Your task to perform on an android device: open app "Google Photos" (install if not already installed) Image 0: 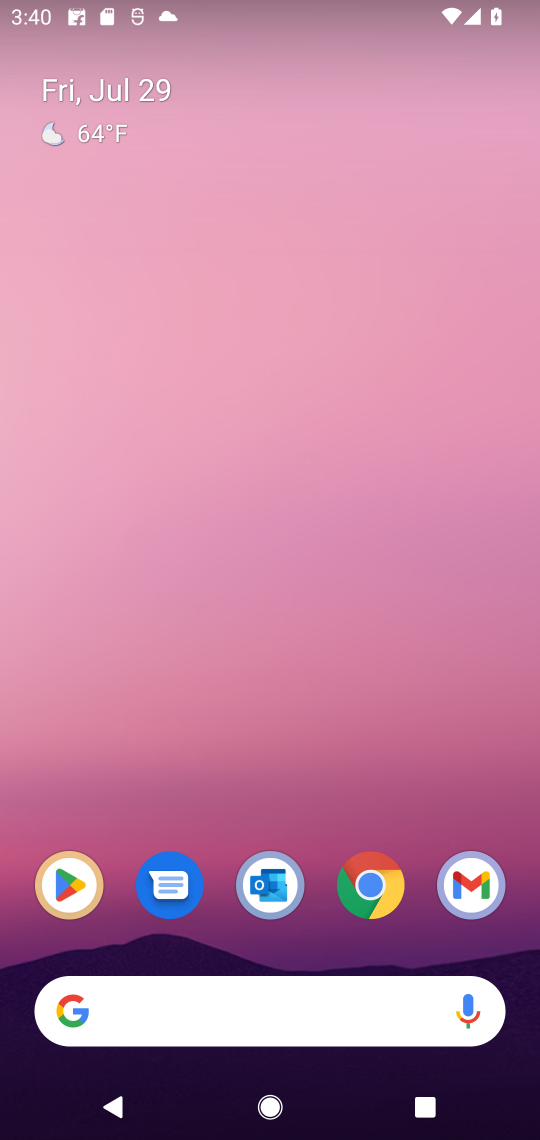
Step 0: click (68, 887)
Your task to perform on an android device: open app "Google Photos" (install if not already installed) Image 1: 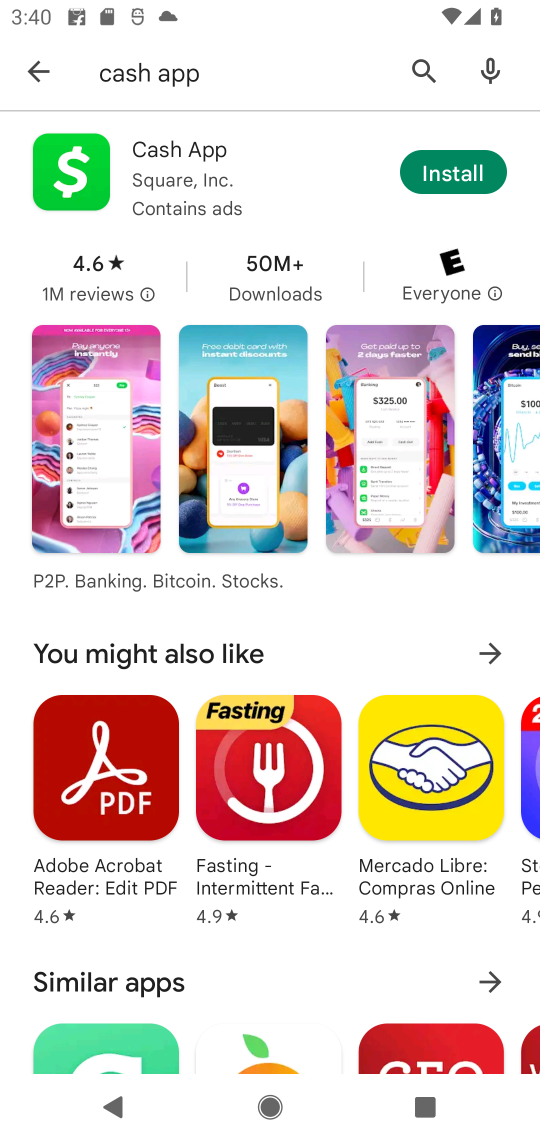
Step 1: click (429, 62)
Your task to perform on an android device: open app "Google Photos" (install if not already installed) Image 2: 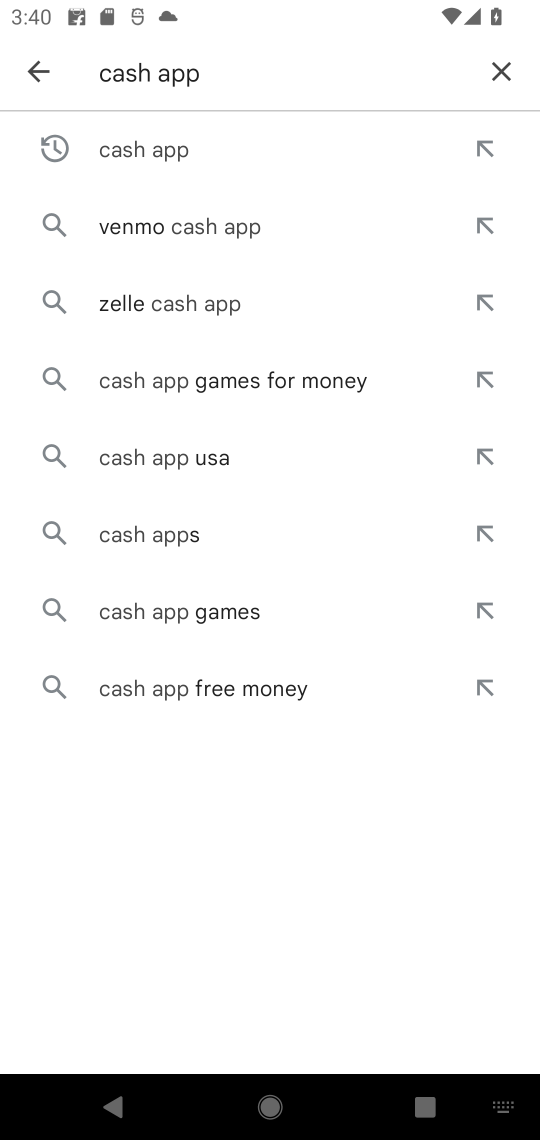
Step 2: click (508, 70)
Your task to perform on an android device: open app "Google Photos" (install if not already installed) Image 3: 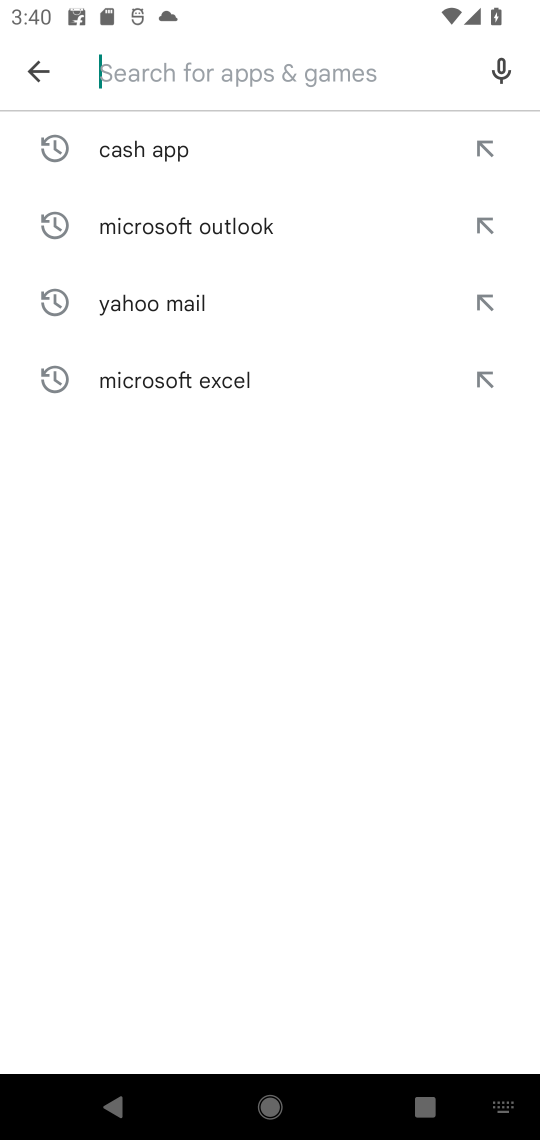
Step 3: type "Google Photos"
Your task to perform on an android device: open app "Google Photos" (install if not already installed) Image 4: 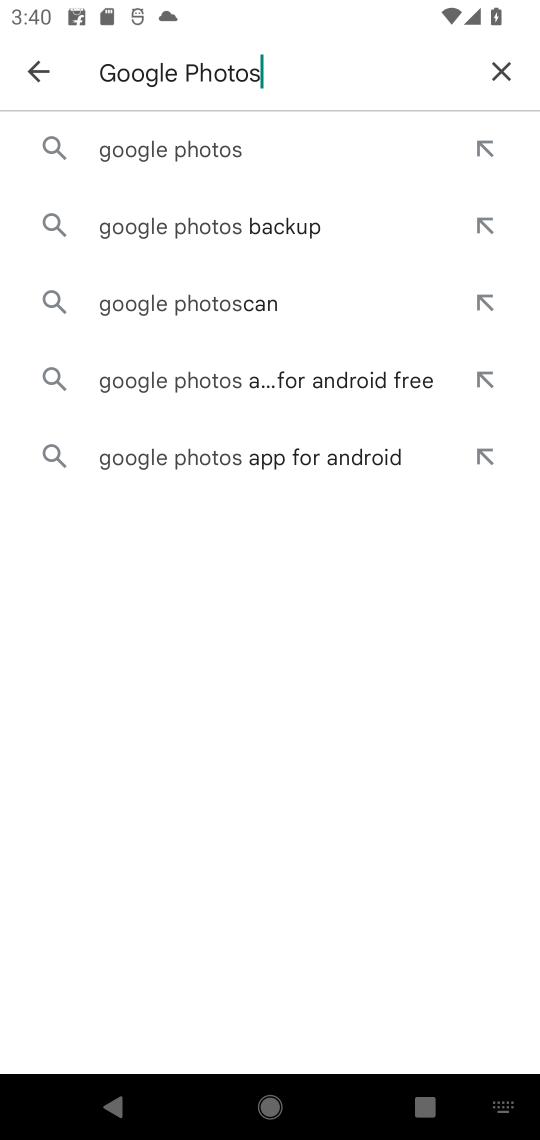
Step 4: click (307, 156)
Your task to perform on an android device: open app "Google Photos" (install if not already installed) Image 5: 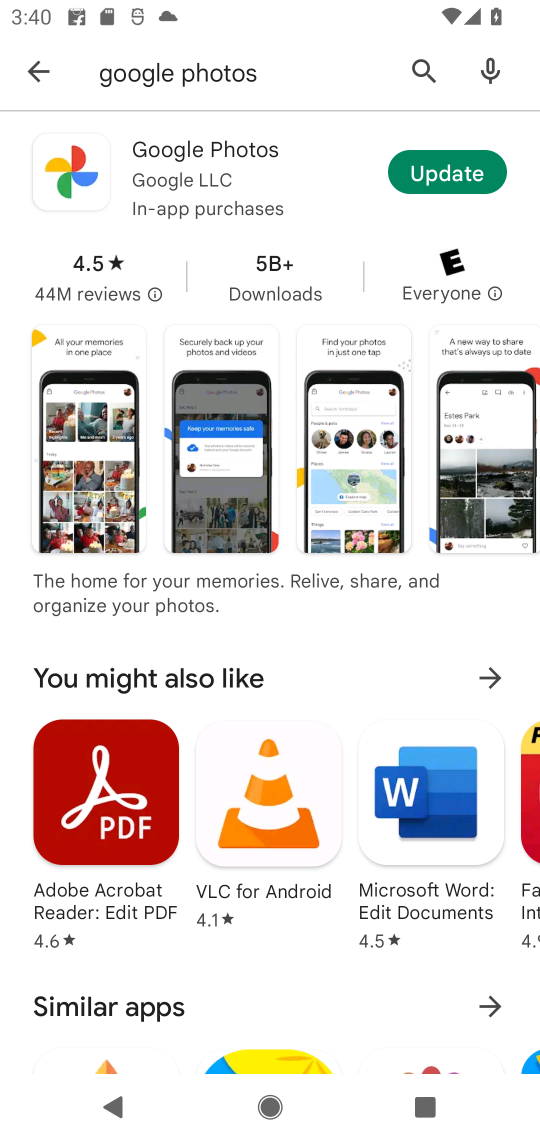
Step 5: click (243, 182)
Your task to perform on an android device: open app "Google Photos" (install if not already installed) Image 6: 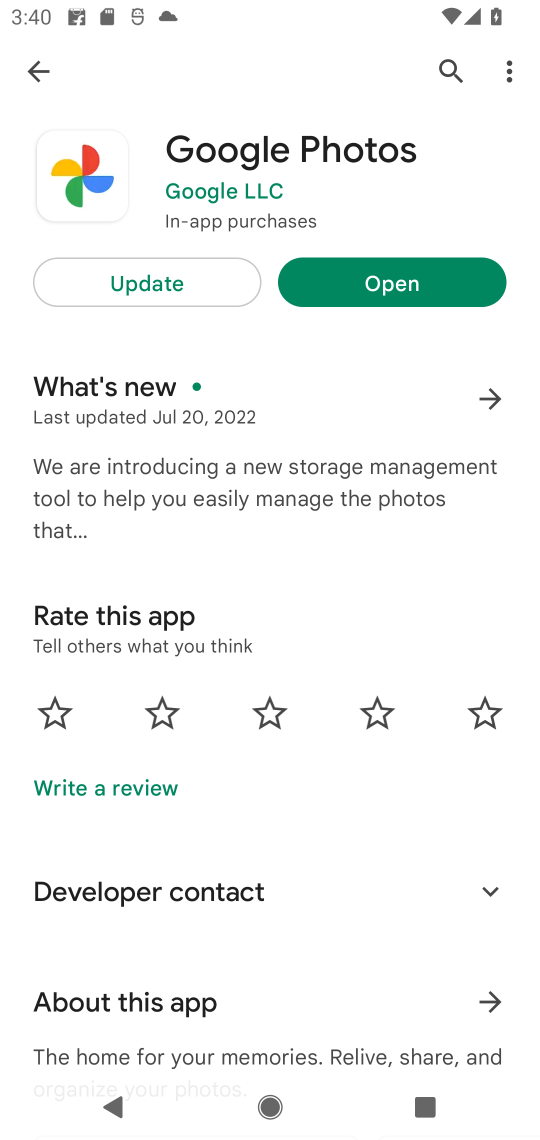
Step 6: click (379, 281)
Your task to perform on an android device: open app "Google Photos" (install if not already installed) Image 7: 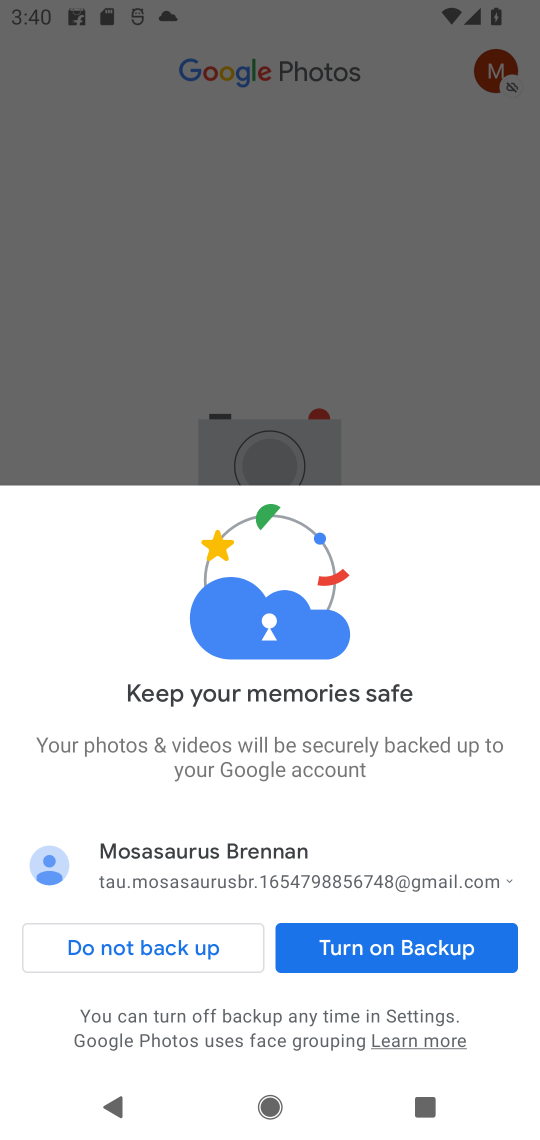
Step 7: task complete